Your task to perform on an android device: Go to display settings Image 0: 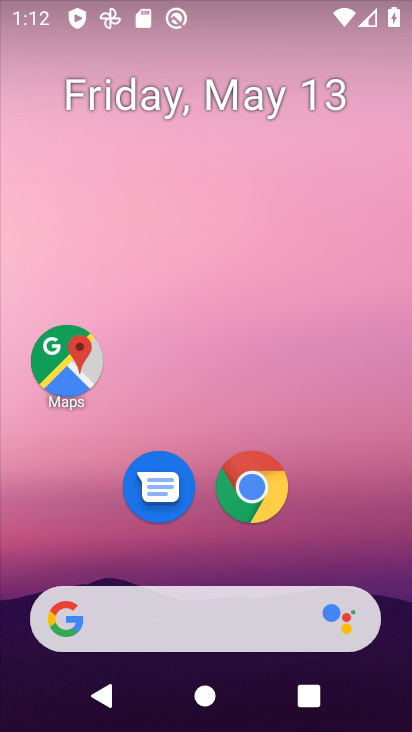
Step 0: drag from (400, 545) to (375, 123)
Your task to perform on an android device: Go to display settings Image 1: 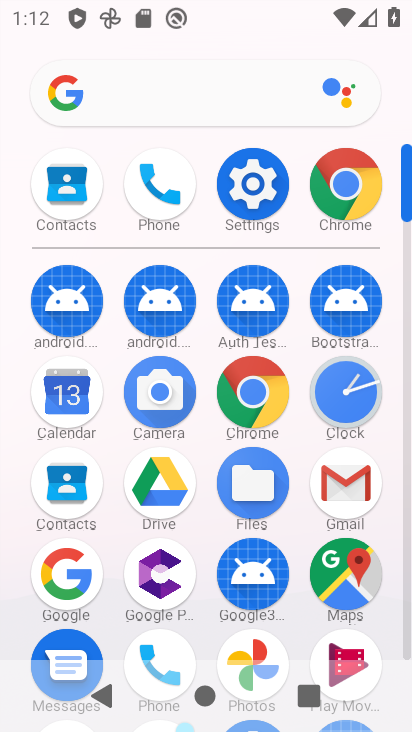
Step 1: click (259, 192)
Your task to perform on an android device: Go to display settings Image 2: 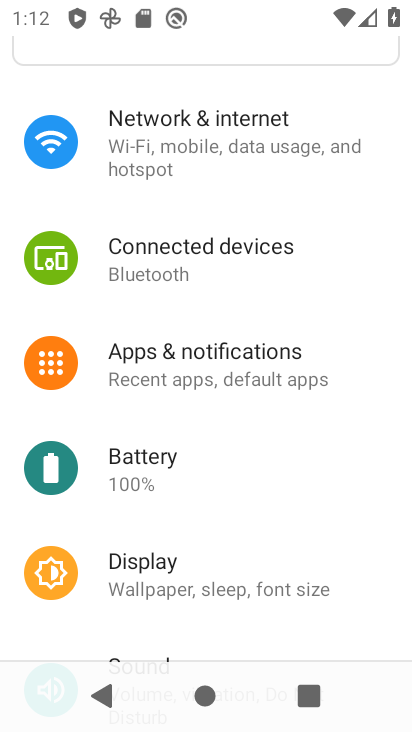
Step 2: click (232, 568)
Your task to perform on an android device: Go to display settings Image 3: 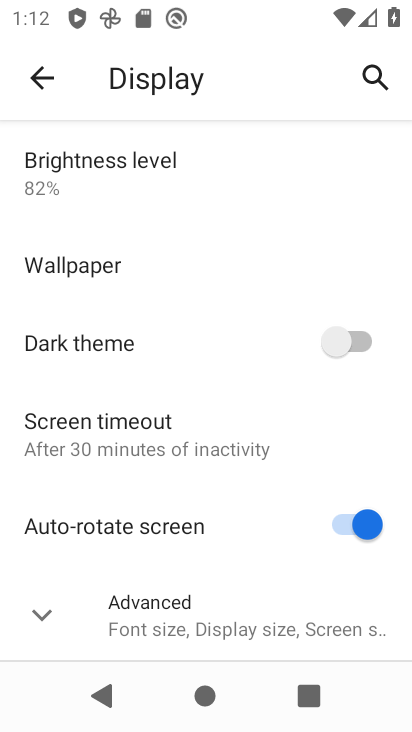
Step 3: task complete